Your task to perform on an android device: Go to eBay Image 0: 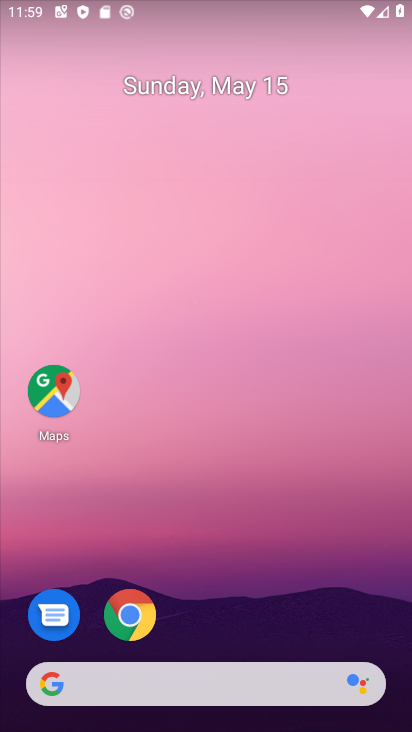
Step 0: drag from (256, 696) to (286, 186)
Your task to perform on an android device: Go to eBay Image 1: 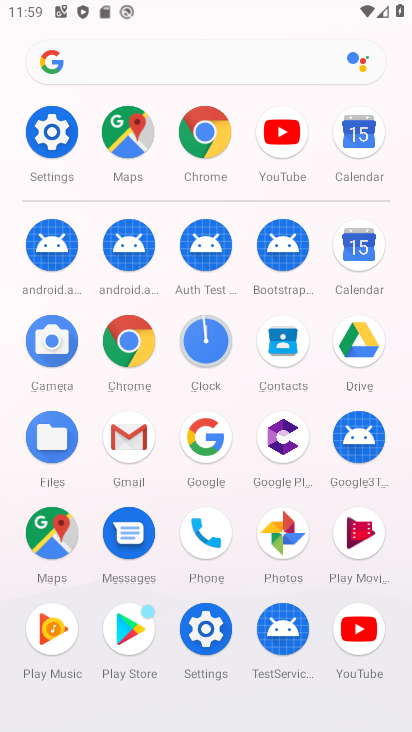
Step 1: click (150, 354)
Your task to perform on an android device: Go to eBay Image 2: 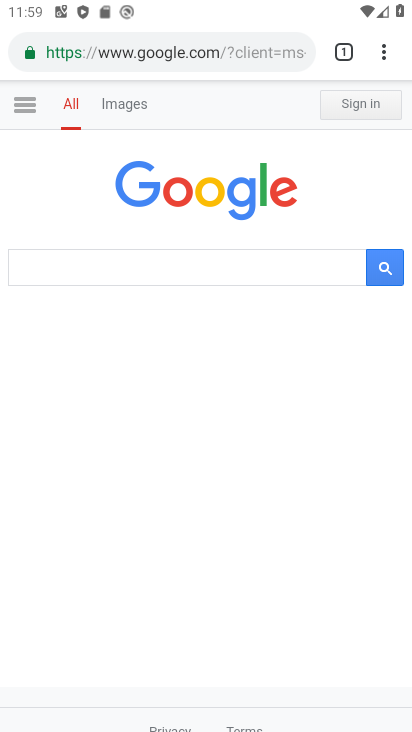
Step 2: click (266, 49)
Your task to perform on an android device: Go to eBay Image 3: 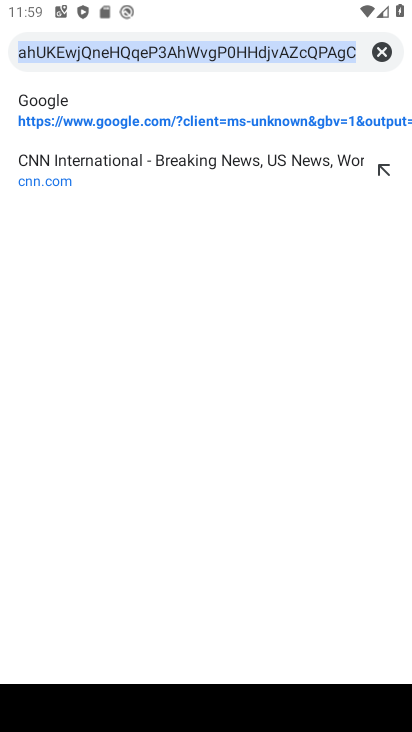
Step 3: click (381, 54)
Your task to perform on an android device: Go to eBay Image 4: 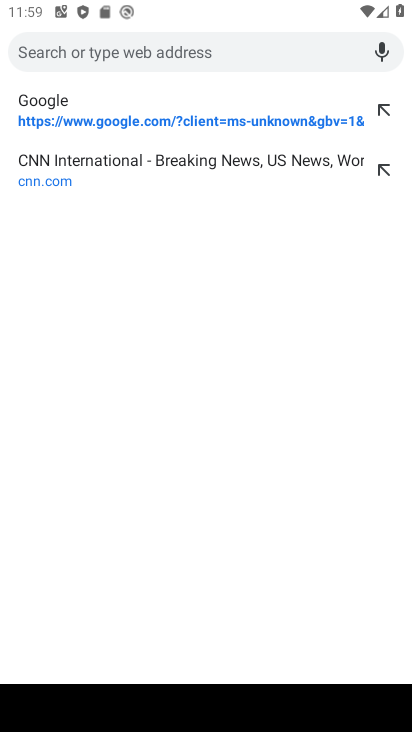
Step 4: type "ebay"
Your task to perform on an android device: Go to eBay Image 5: 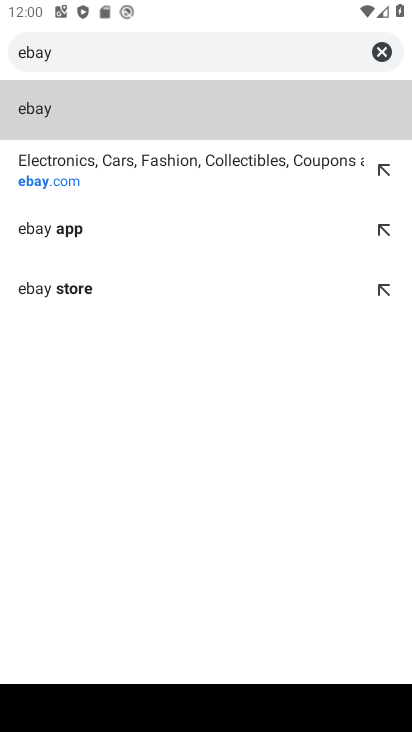
Step 5: click (148, 171)
Your task to perform on an android device: Go to eBay Image 6: 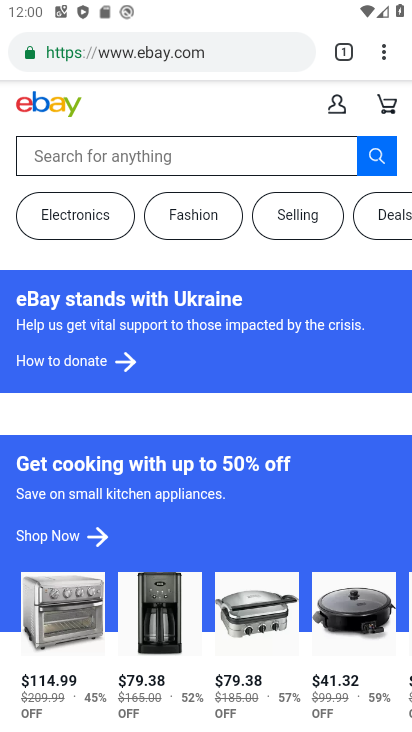
Step 6: task complete